Your task to perform on an android device: Open calendar and show me the second week of next month Image 0: 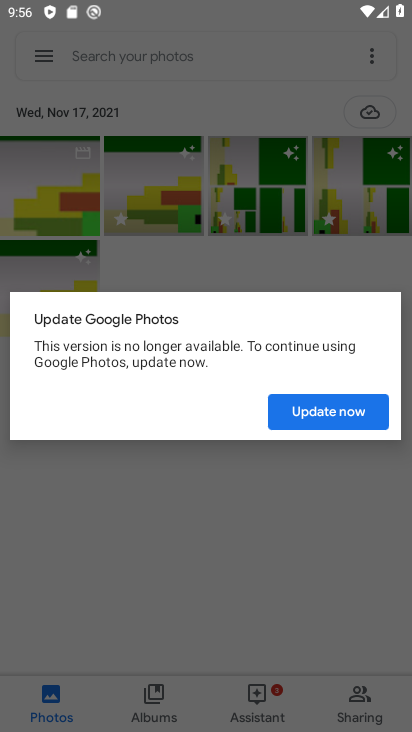
Step 0: press home button
Your task to perform on an android device: Open calendar and show me the second week of next month Image 1: 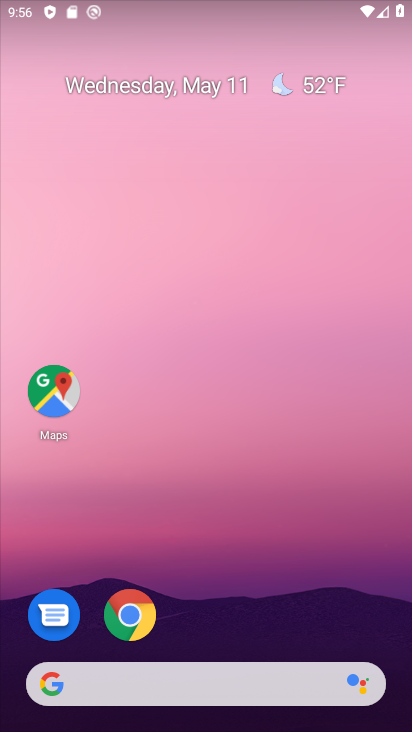
Step 1: drag from (238, 584) to (238, 76)
Your task to perform on an android device: Open calendar and show me the second week of next month Image 2: 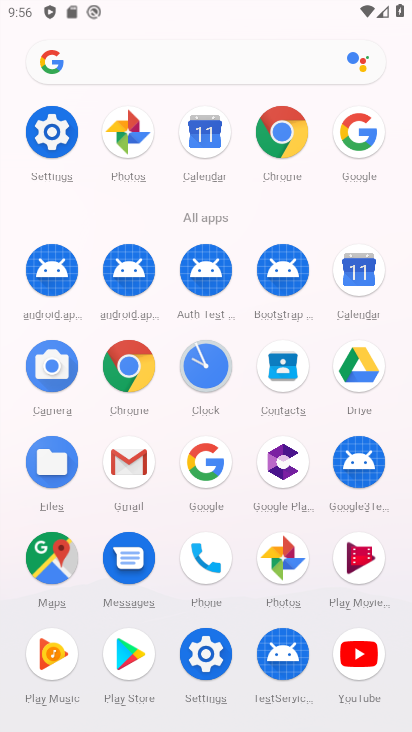
Step 2: click (205, 133)
Your task to perform on an android device: Open calendar and show me the second week of next month Image 3: 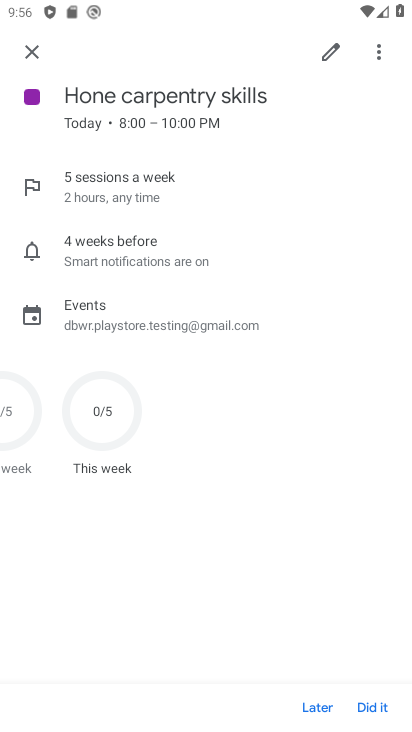
Step 3: click (34, 56)
Your task to perform on an android device: Open calendar and show me the second week of next month Image 4: 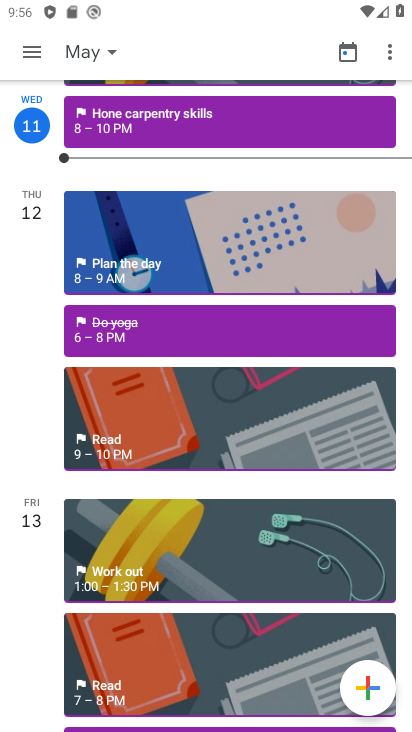
Step 4: click (354, 55)
Your task to perform on an android device: Open calendar and show me the second week of next month Image 5: 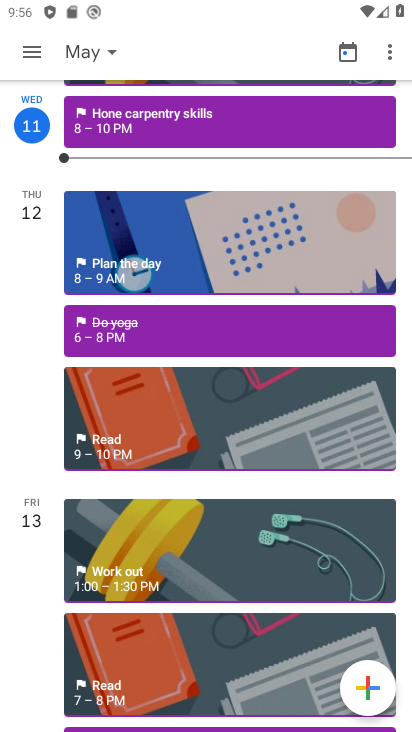
Step 5: click (109, 47)
Your task to perform on an android device: Open calendar and show me the second week of next month Image 6: 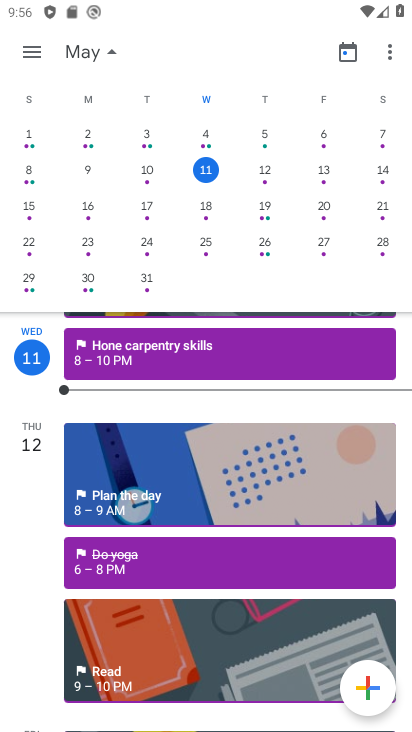
Step 6: drag from (359, 189) to (9, 241)
Your task to perform on an android device: Open calendar and show me the second week of next month Image 7: 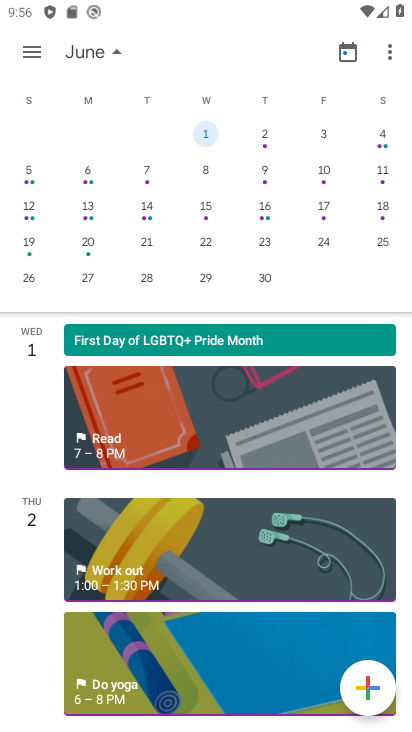
Step 7: click (83, 194)
Your task to perform on an android device: Open calendar and show me the second week of next month Image 8: 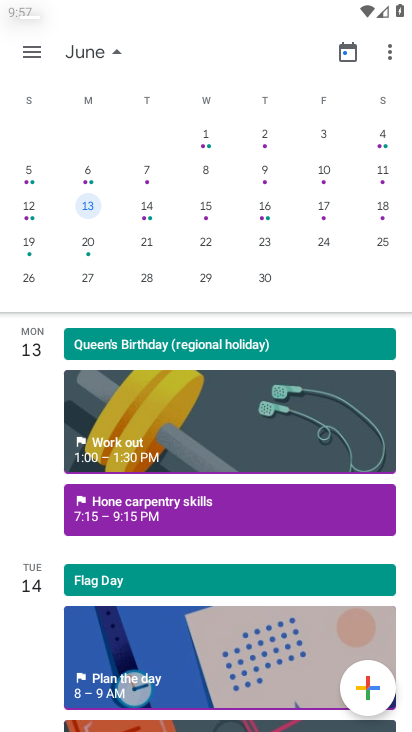
Step 8: click (38, 52)
Your task to perform on an android device: Open calendar and show me the second week of next month Image 9: 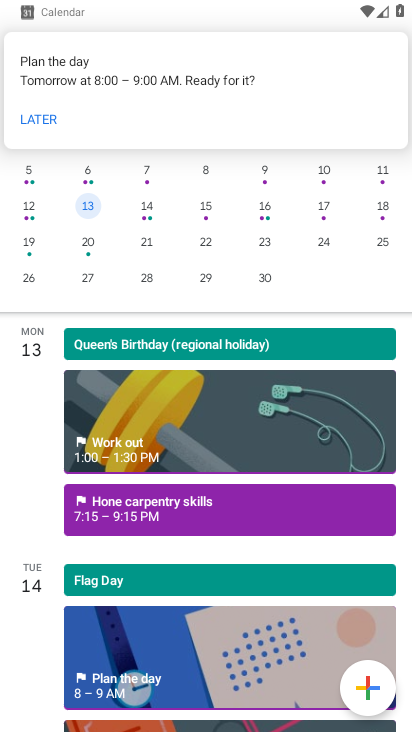
Step 9: click (53, 115)
Your task to perform on an android device: Open calendar and show me the second week of next month Image 10: 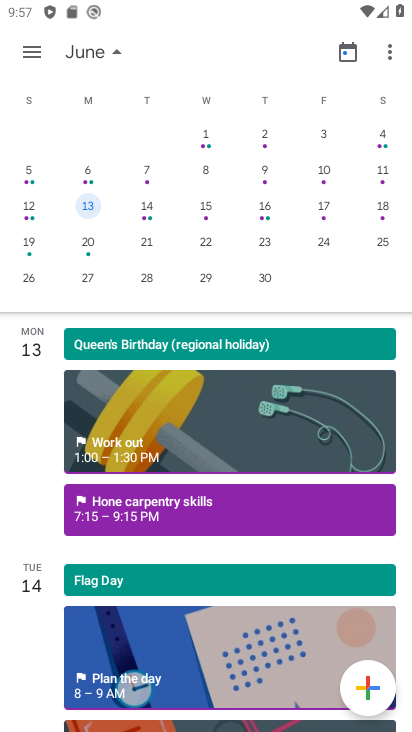
Step 10: click (35, 57)
Your task to perform on an android device: Open calendar and show me the second week of next month Image 11: 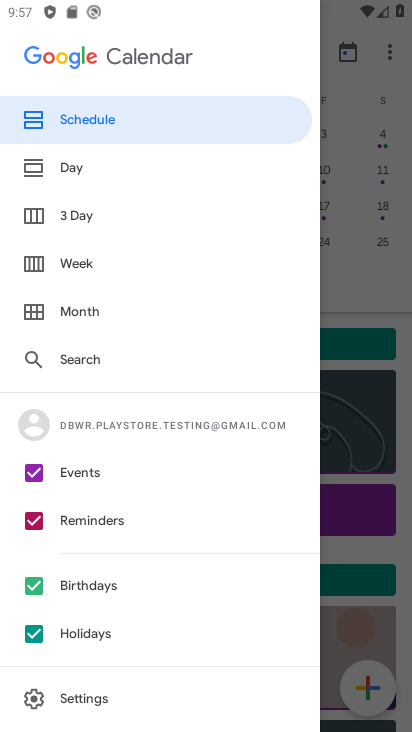
Step 11: click (88, 261)
Your task to perform on an android device: Open calendar and show me the second week of next month Image 12: 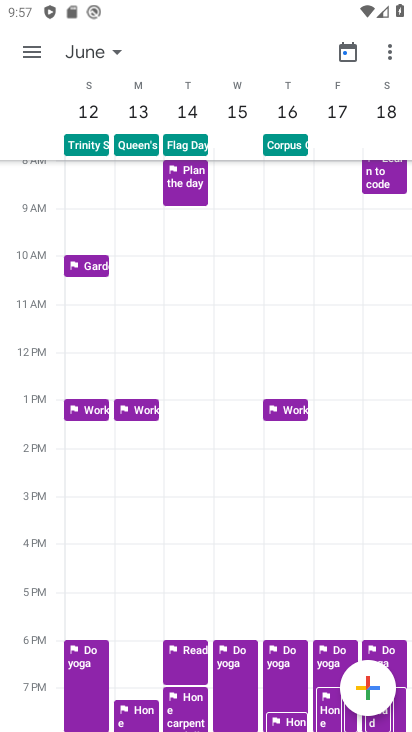
Step 12: task complete